Your task to perform on an android device: turn off location history Image 0: 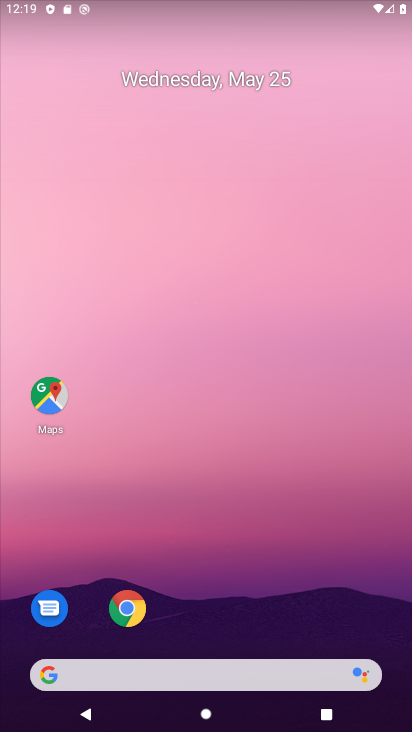
Step 0: click (131, 616)
Your task to perform on an android device: turn off location history Image 1: 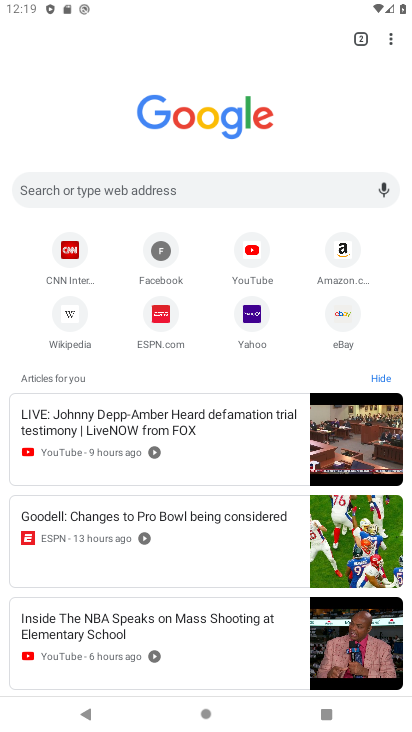
Step 1: press home button
Your task to perform on an android device: turn off location history Image 2: 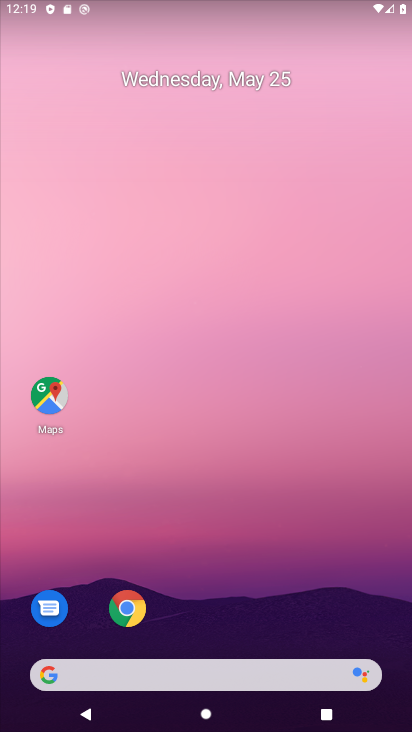
Step 2: click (51, 399)
Your task to perform on an android device: turn off location history Image 3: 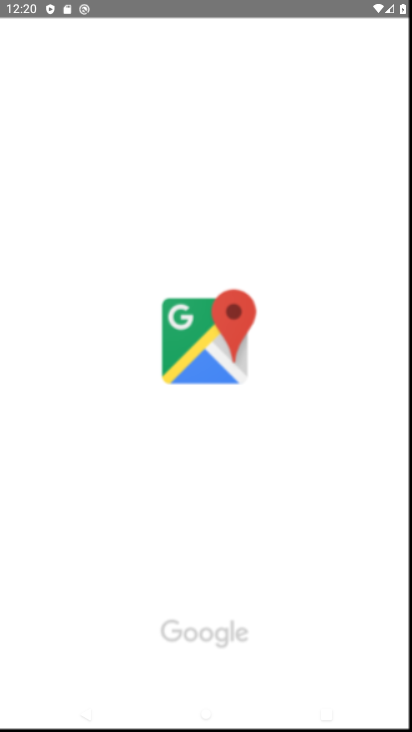
Step 3: task complete